Your task to perform on an android device: toggle priority inbox in the gmail app Image 0: 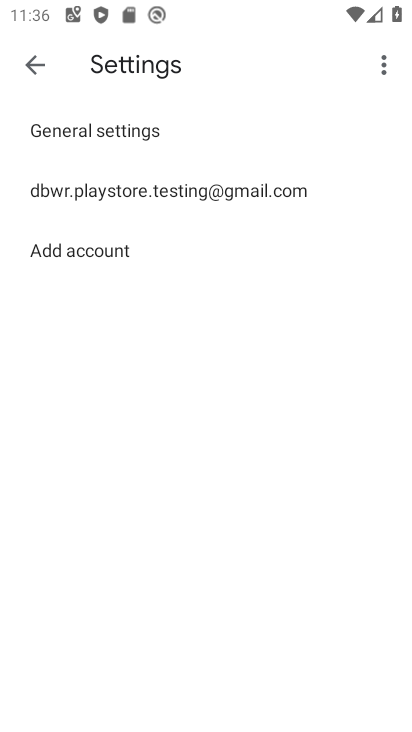
Step 0: press home button
Your task to perform on an android device: toggle priority inbox in the gmail app Image 1: 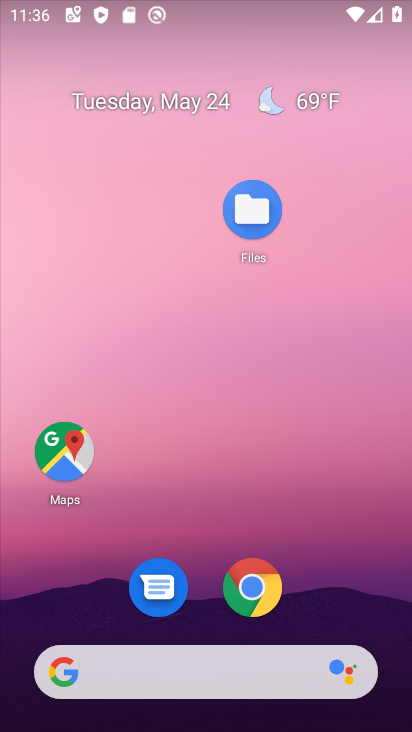
Step 1: drag from (187, 489) to (78, 143)
Your task to perform on an android device: toggle priority inbox in the gmail app Image 2: 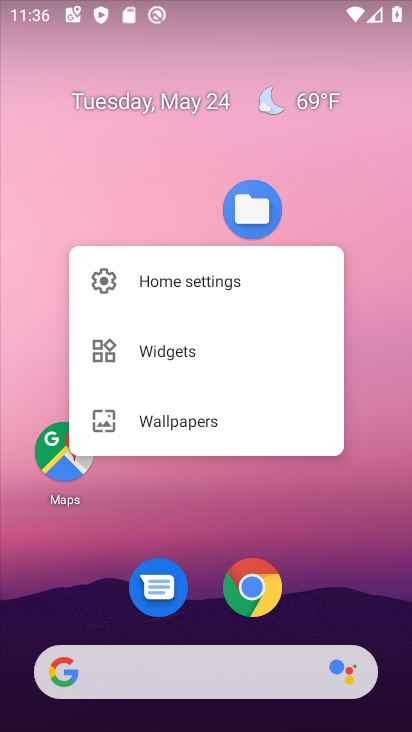
Step 2: click (362, 573)
Your task to perform on an android device: toggle priority inbox in the gmail app Image 3: 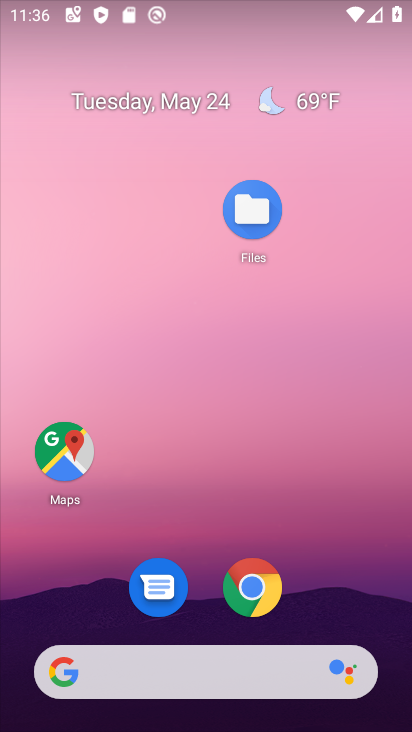
Step 3: drag from (362, 573) to (43, 95)
Your task to perform on an android device: toggle priority inbox in the gmail app Image 4: 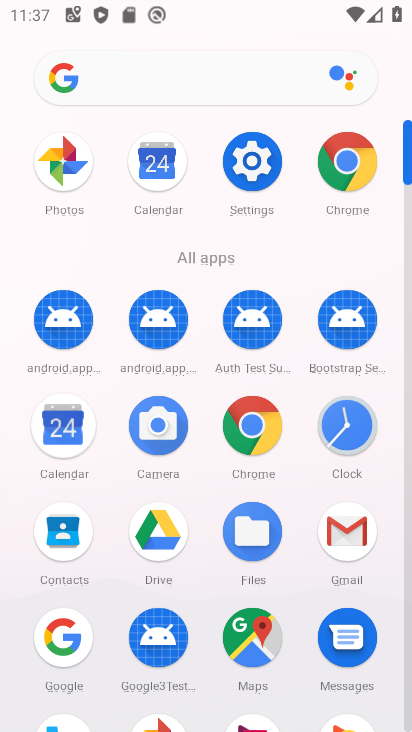
Step 4: click (356, 536)
Your task to perform on an android device: toggle priority inbox in the gmail app Image 5: 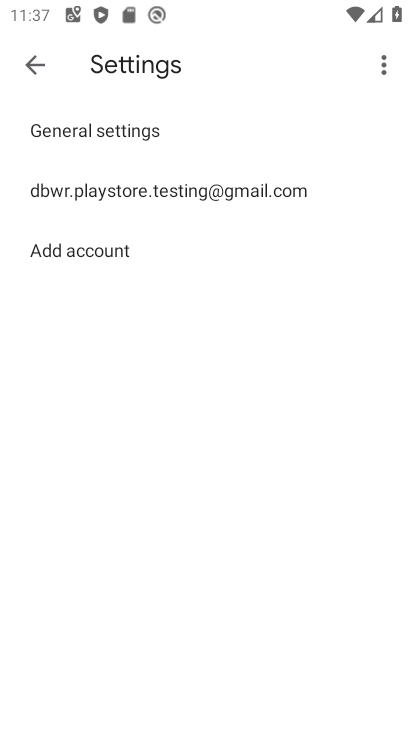
Step 5: click (271, 190)
Your task to perform on an android device: toggle priority inbox in the gmail app Image 6: 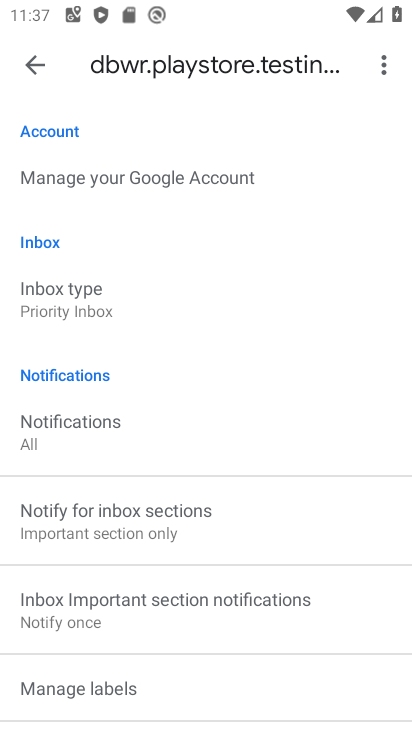
Step 6: click (55, 304)
Your task to perform on an android device: toggle priority inbox in the gmail app Image 7: 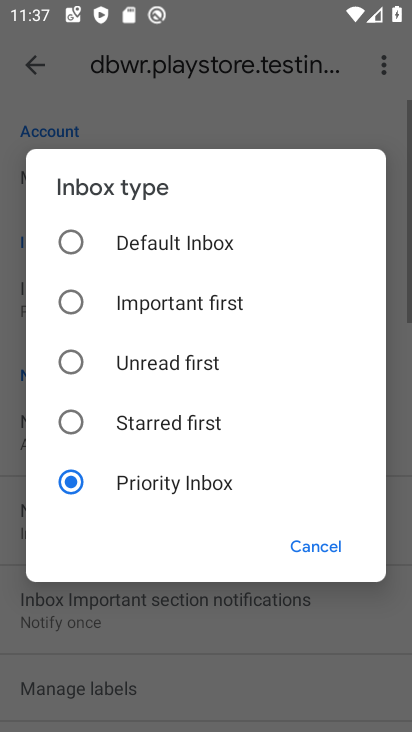
Step 7: click (55, 304)
Your task to perform on an android device: toggle priority inbox in the gmail app Image 8: 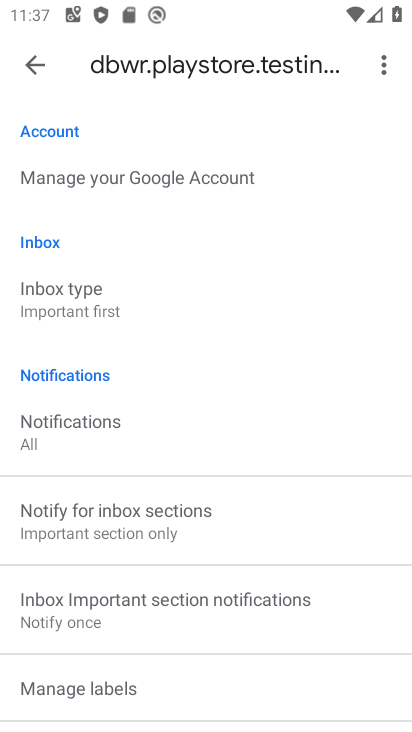
Step 8: task complete